Your task to perform on an android device: Open settings Image 0: 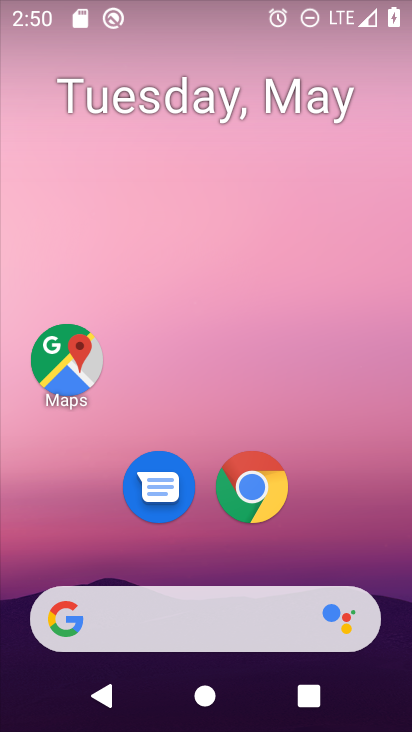
Step 0: drag from (17, 586) to (171, 192)
Your task to perform on an android device: Open settings Image 1: 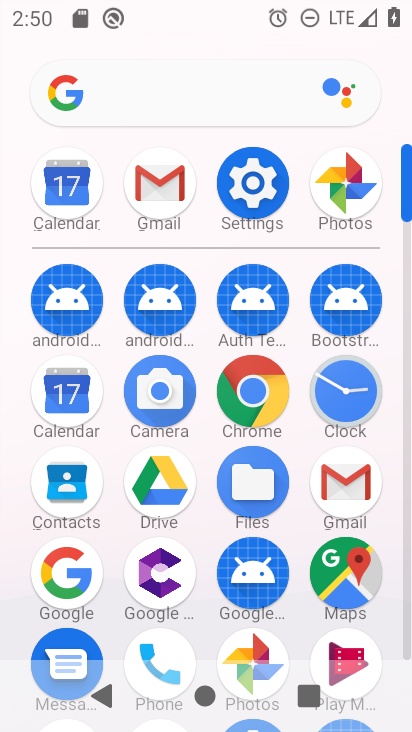
Step 1: click (246, 181)
Your task to perform on an android device: Open settings Image 2: 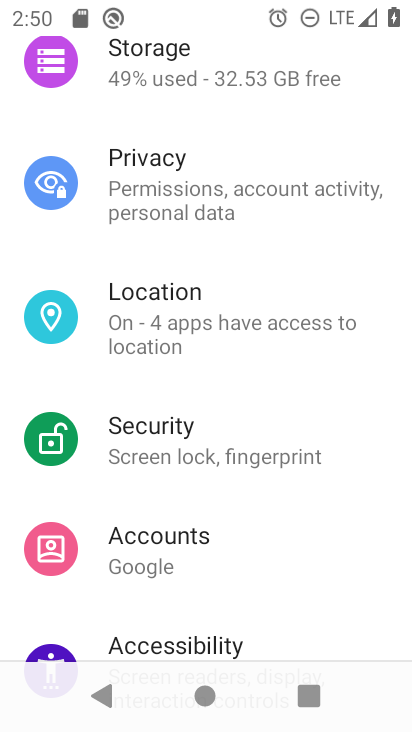
Step 2: task complete